Your task to perform on an android device: Go to network settings Image 0: 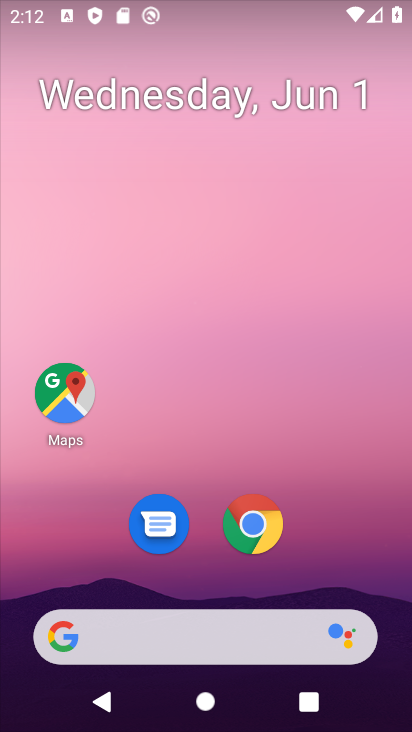
Step 0: drag from (233, 446) to (203, 0)
Your task to perform on an android device: Go to network settings Image 1: 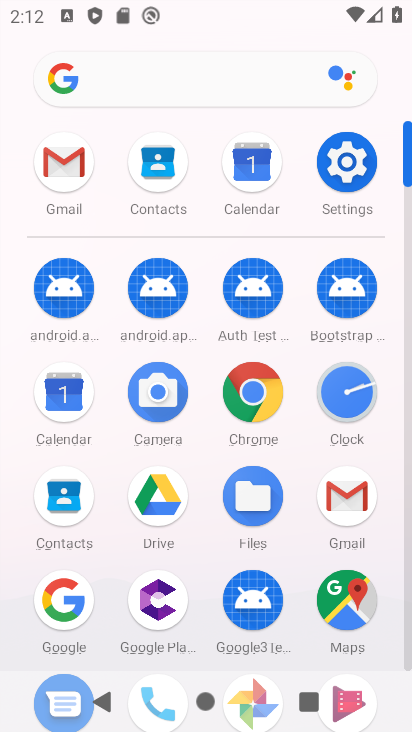
Step 1: click (366, 171)
Your task to perform on an android device: Go to network settings Image 2: 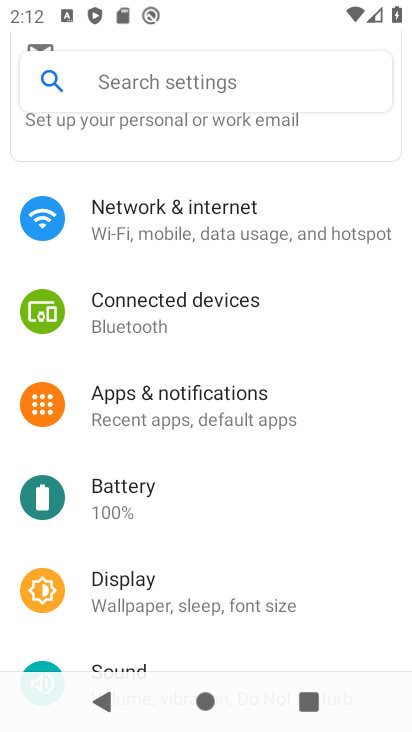
Step 2: click (263, 217)
Your task to perform on an android device: Go to network settings Image 3: 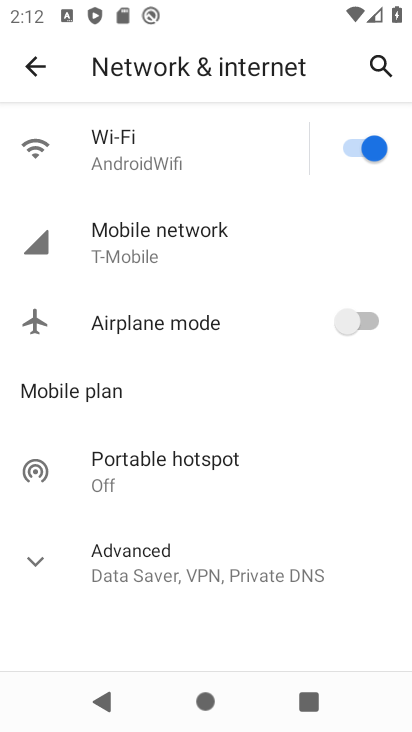
Step 3: task complete